Your task to perform on an android device: move an email to a new category in the gmail app Image 0: 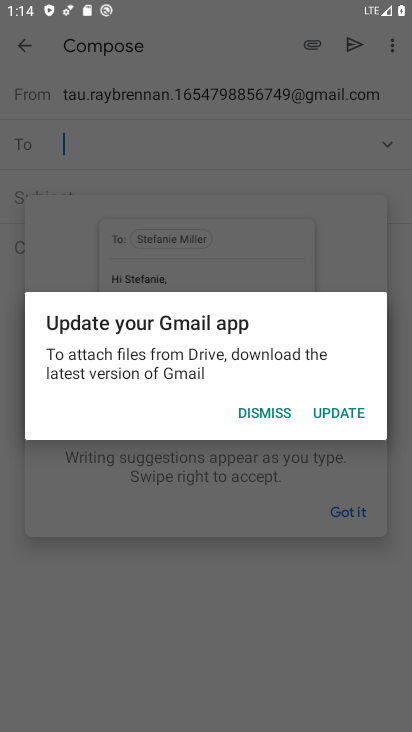
Step 0: press home button
Your task to perform on an android device: move an email to a new category in the gmail app Image 1: 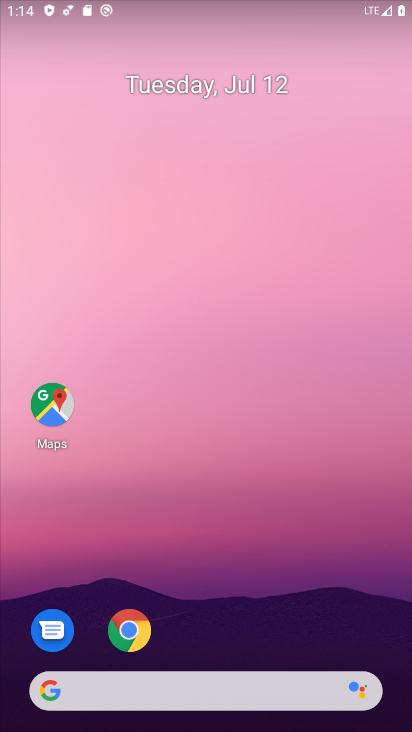
Step 1: drag from (374, 623) to (309, 181)
Your task to perform on an android device: move an email to a new category in the gmail app Image 2: 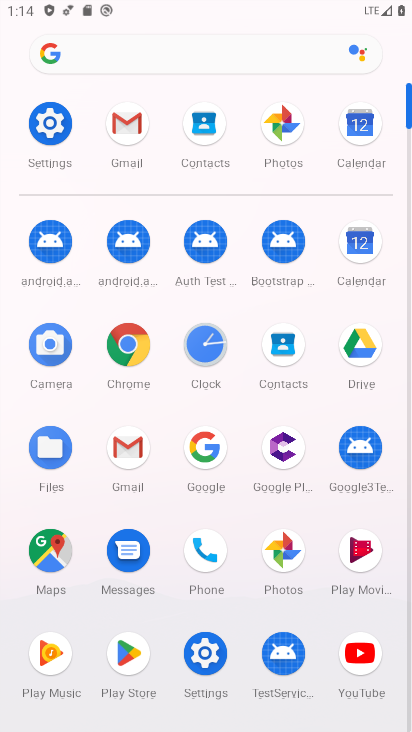
Step 2: click (130, 447)
Your task to perform on an android device: move an email to a new category in the gmail app Image 3: 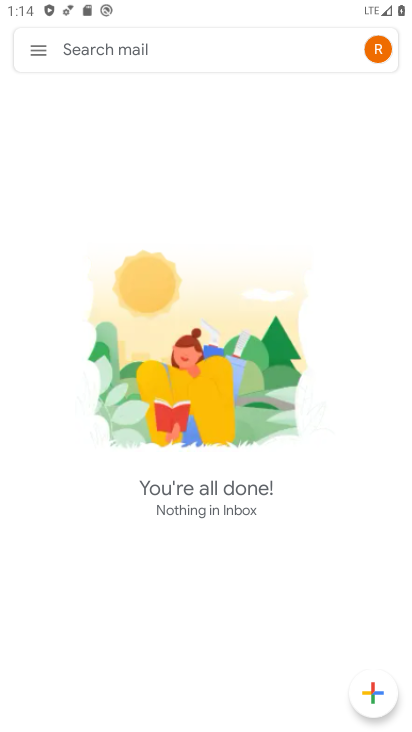
Step 3: click (40, 46)
Your task to perform on an android device: move an email to a new category in the gmail app Image 4: 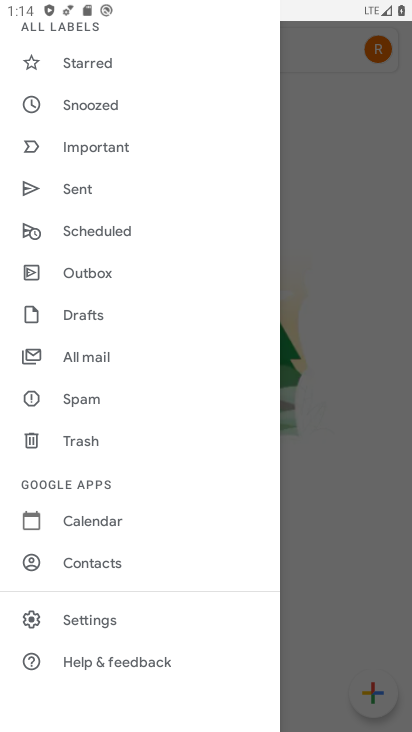
Step 4: click (74, 356)
Your task to perform on an android device: move an email to a new category in the gmail app Image 5: 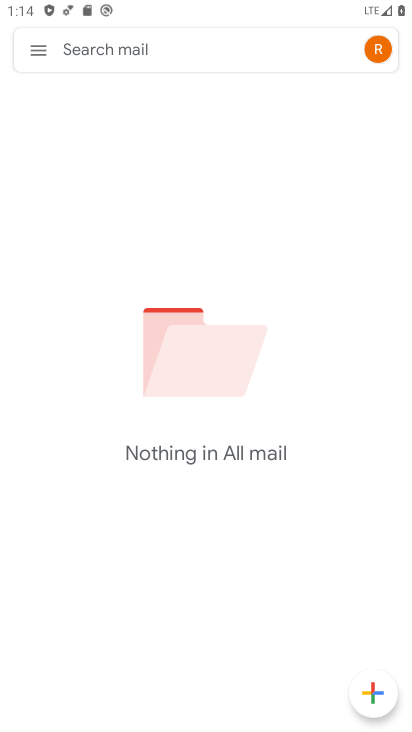
Step 5: task complete